Your task to perform on an android device: Open internet settings Image 0: 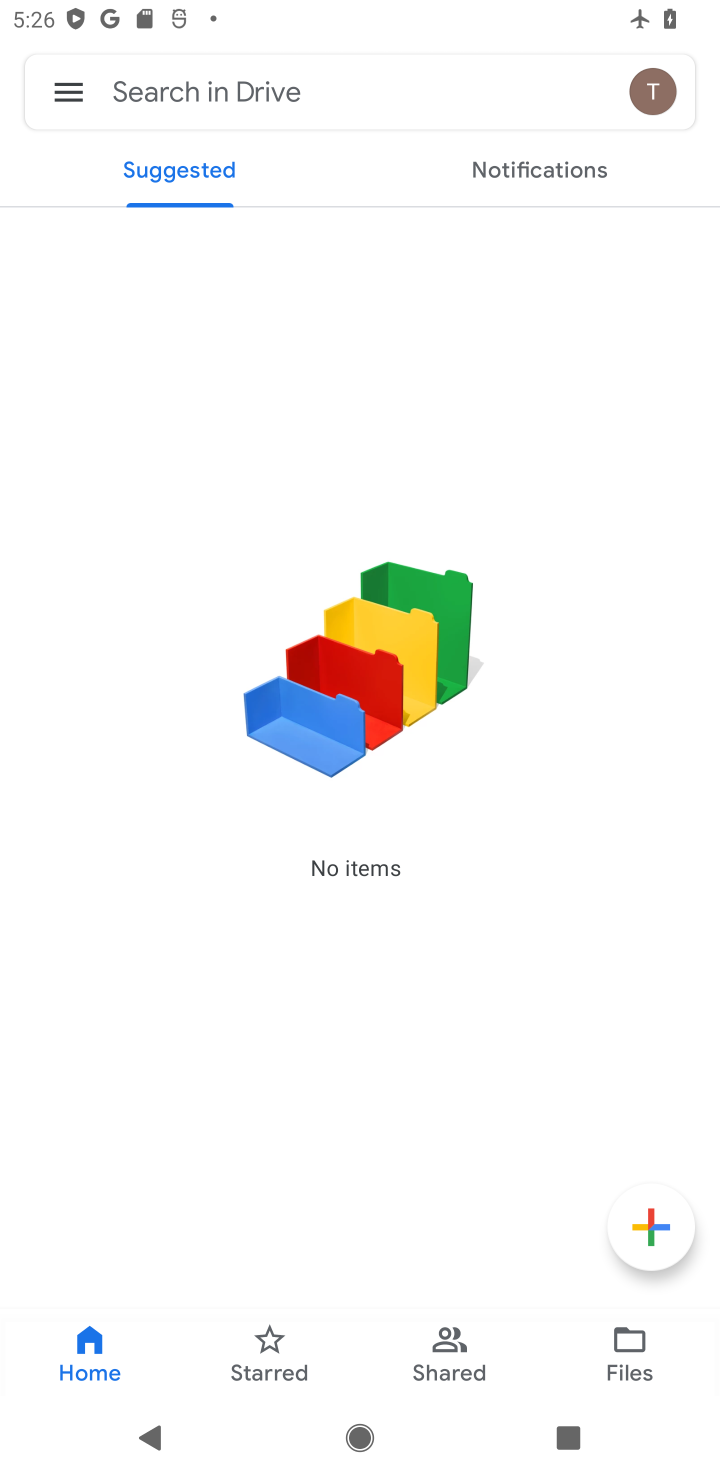
Step 0: press back button
Your task to perform on an android device: Open internet settings Image 1: 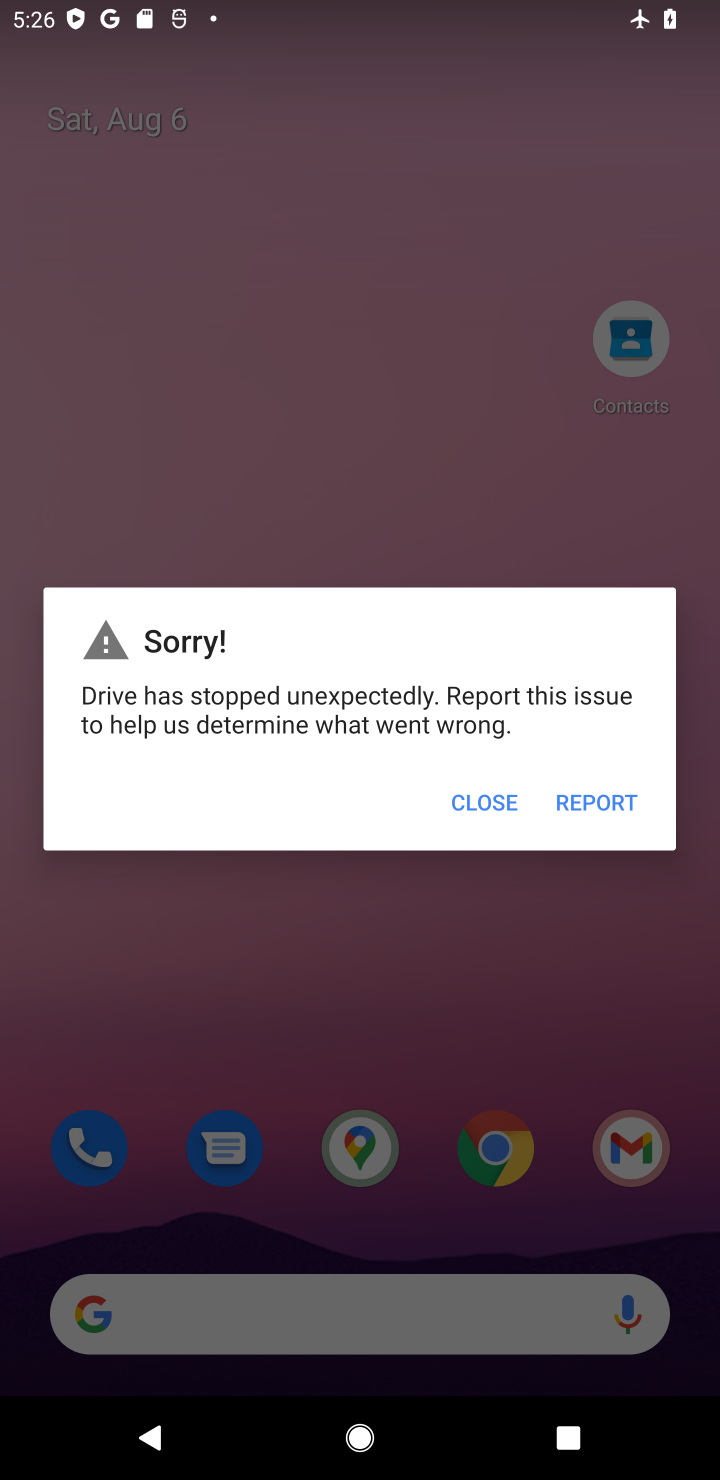
Step 1: press back button
Your task to perform on an android device: Open internet settings Image 2: 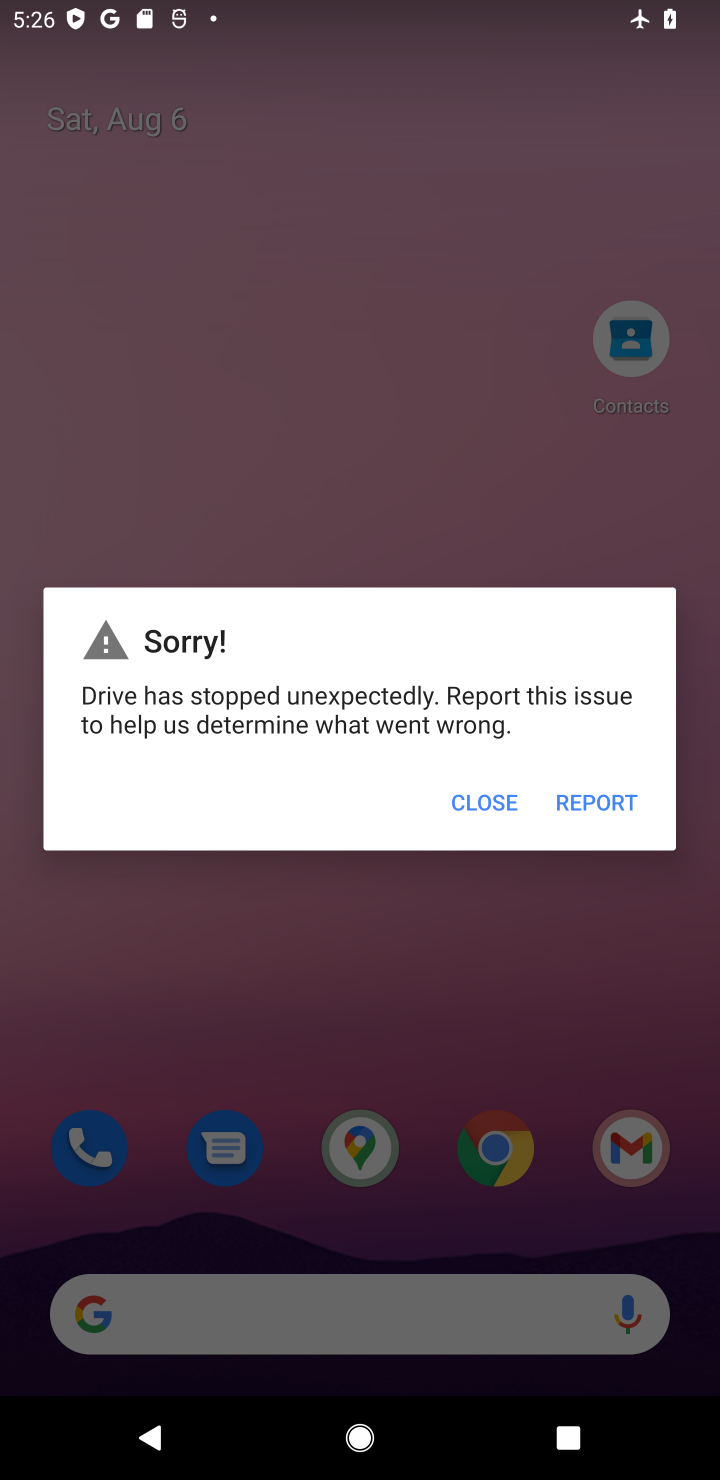
Step 2: click (463, 792)
Your task to perform on an android device: Open internet settings Image 3: 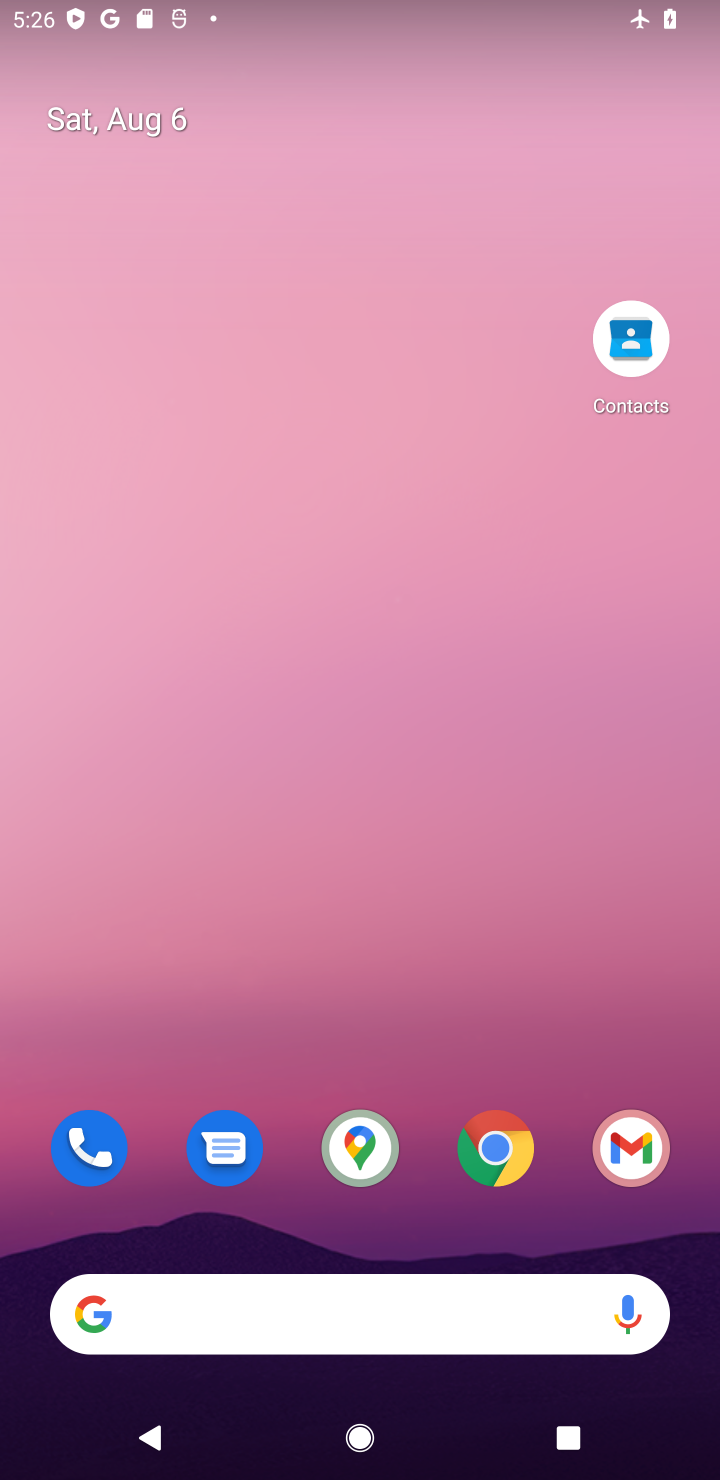
Step 3: drag from (344, 1260) to (187, 125)
Your task to perform on an android device: Open internet settings Image 4: 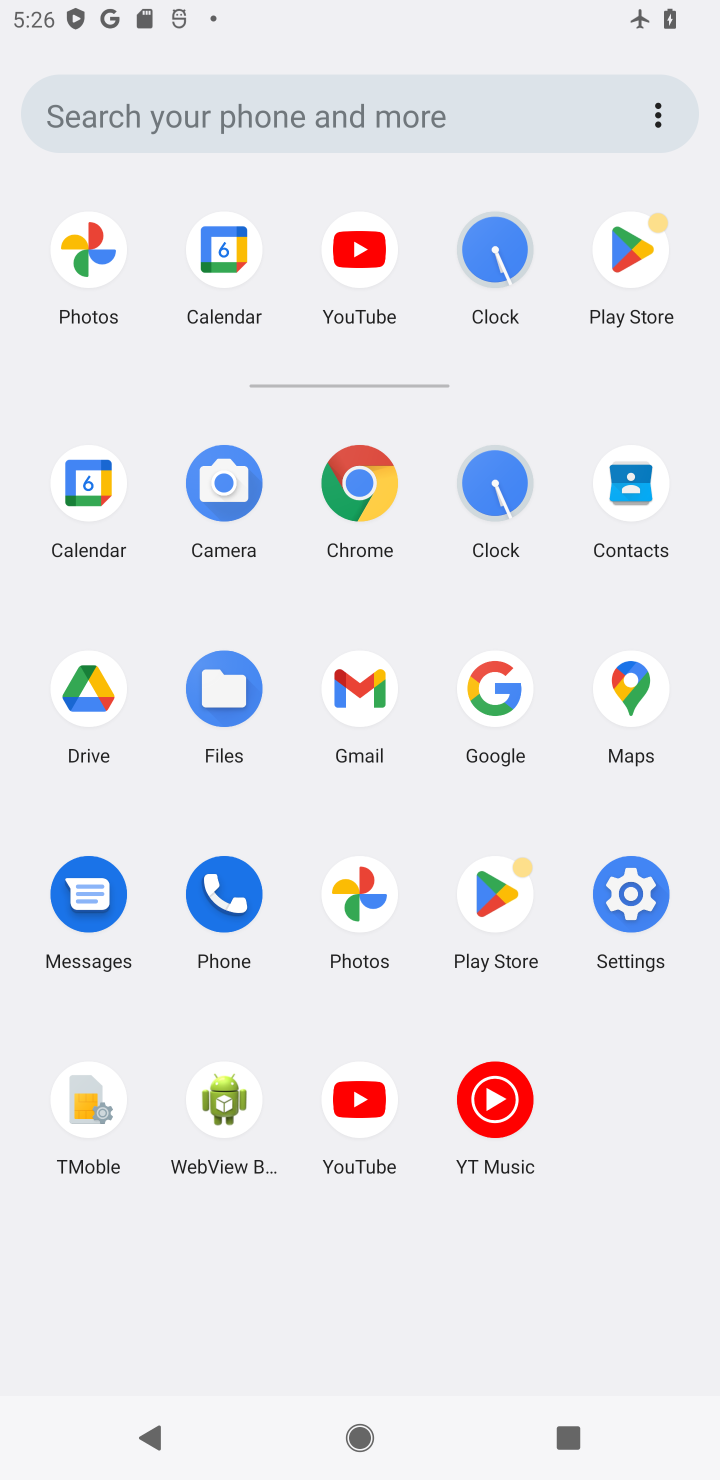
Step 4: click (622, 907)
Your task to perform on an android device: Open internet settings Image 5: 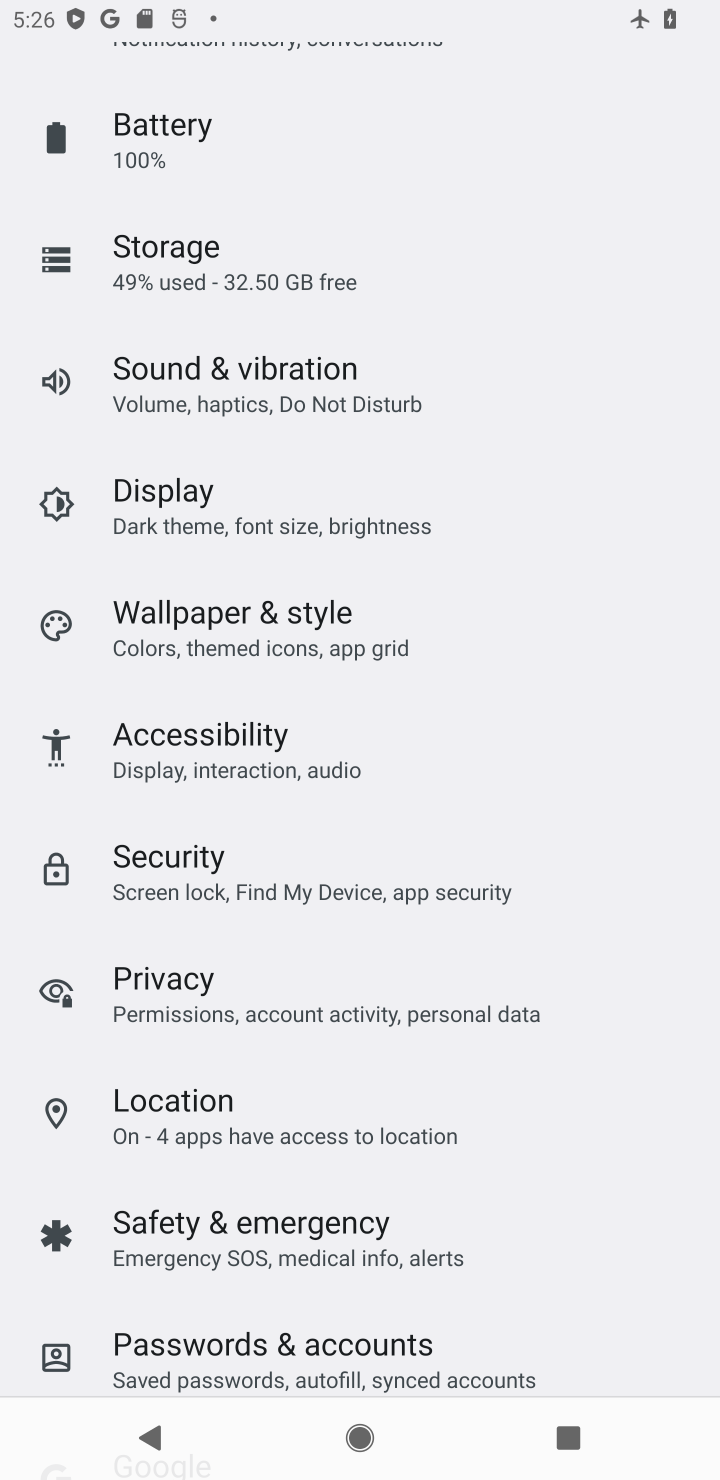
Step 5: drag from (423, 349) to (331, 1343)
Your task to perform on an android device: Open internet settings Image 6: 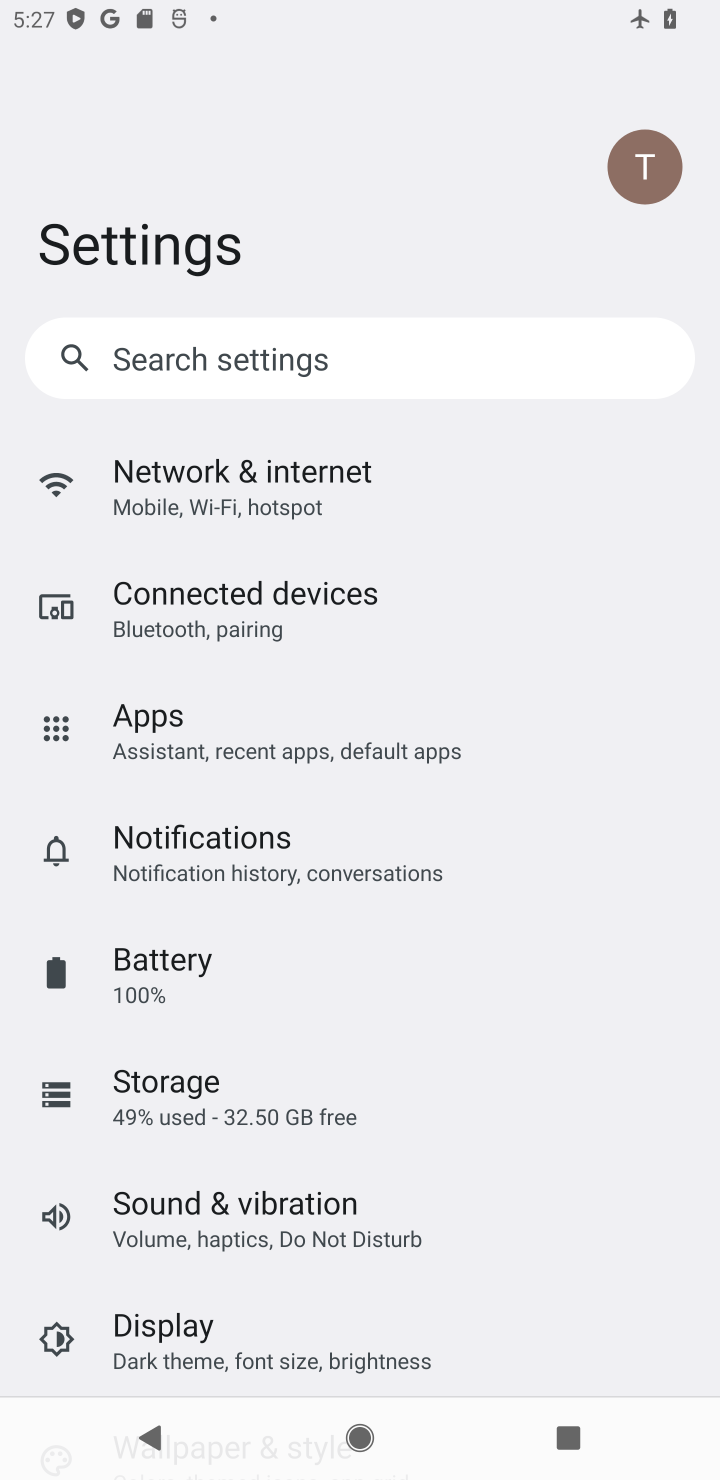
Step 6: click (228, 472)
Your task to perform on an android device: Open internet settings Image 7: 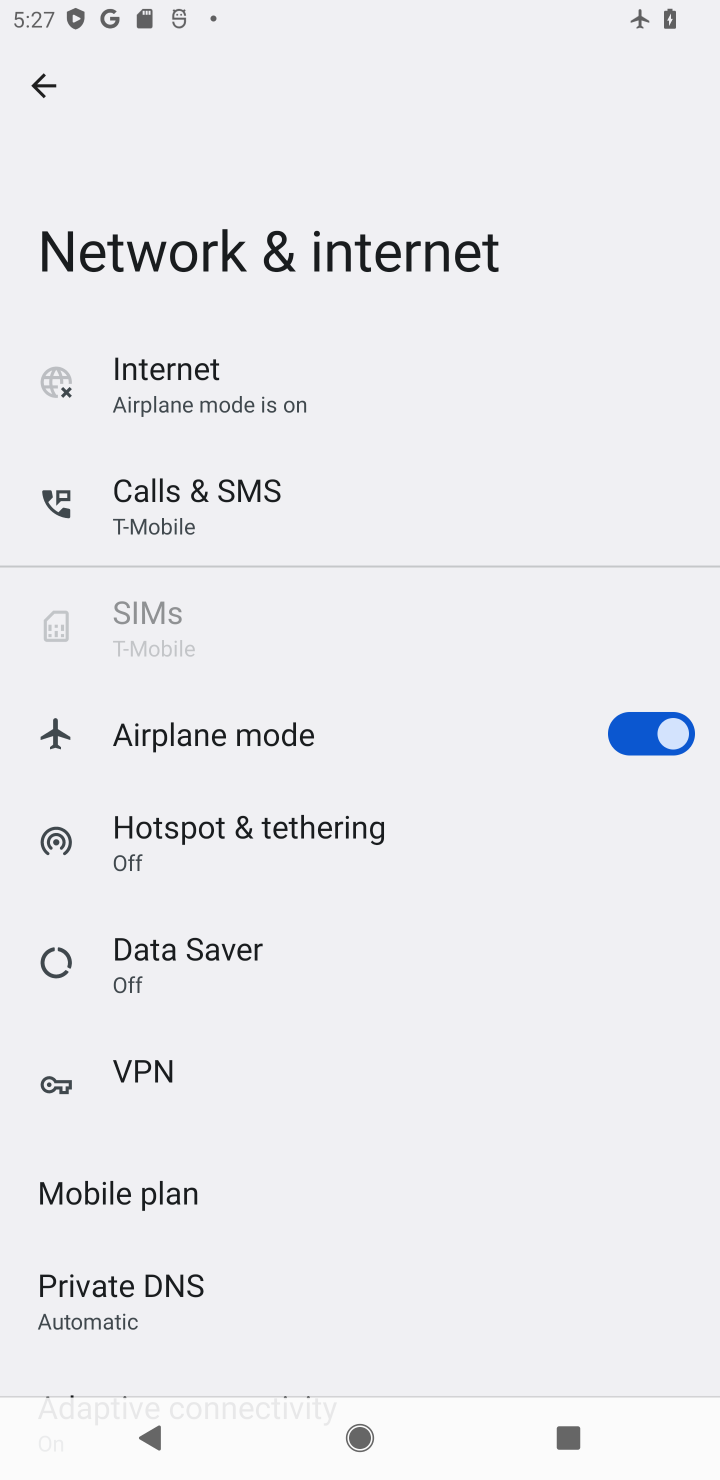
Step 7: click (218, 373)
Your task to perform on an android device: Open internet settings Image 8: 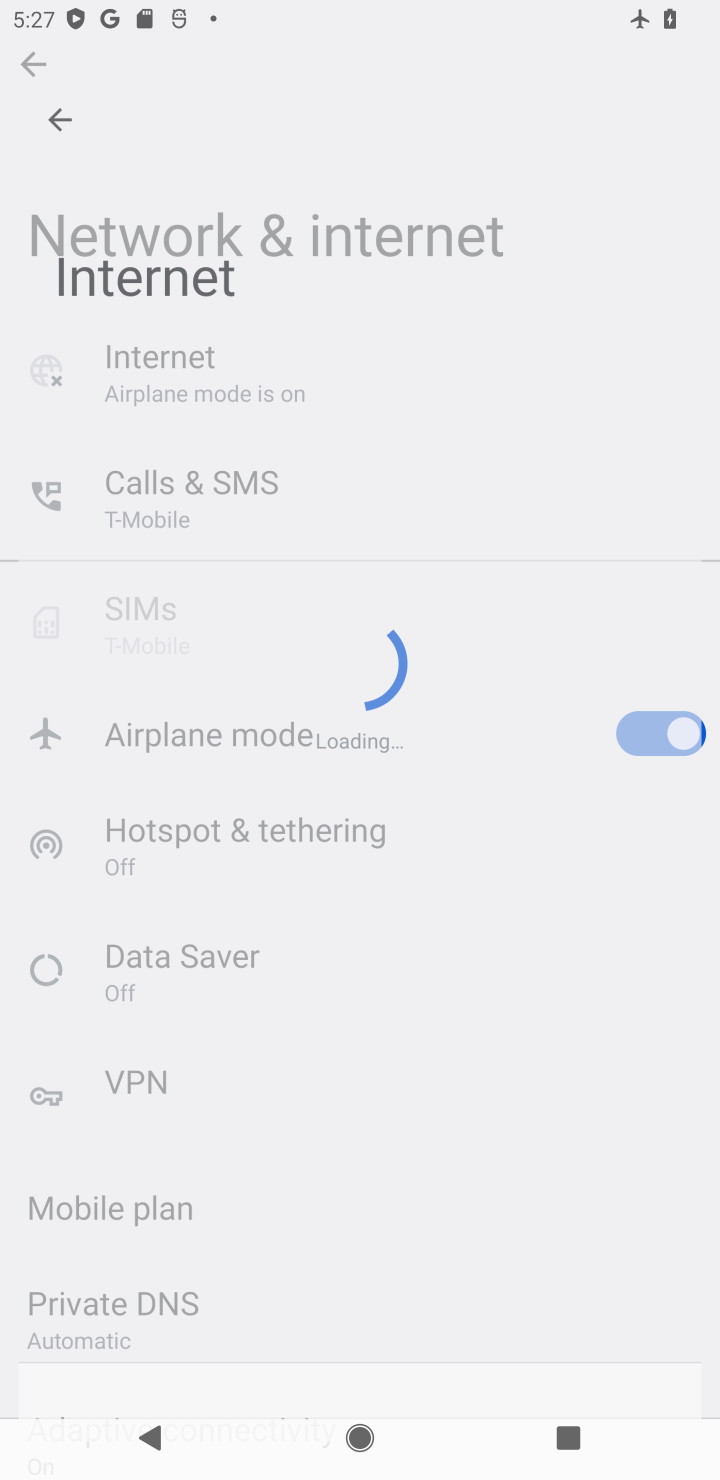
Step 8: task complete